Your task to perform on an android device: add a contact Image 0: 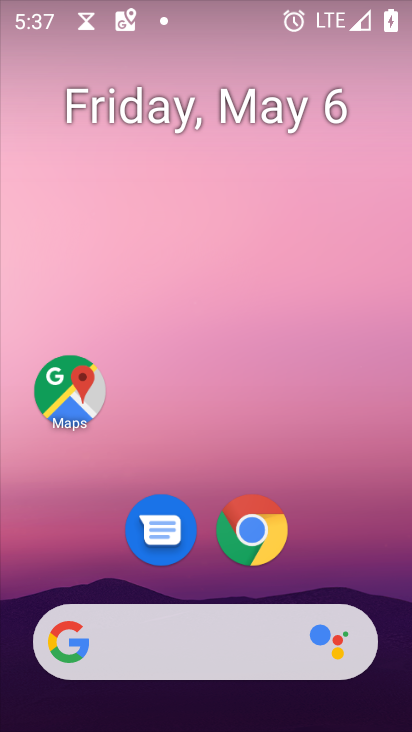
Step 0: drag from (350, 555) to (230, 9)
Your task to perform on an android device: add a contact Image 1: 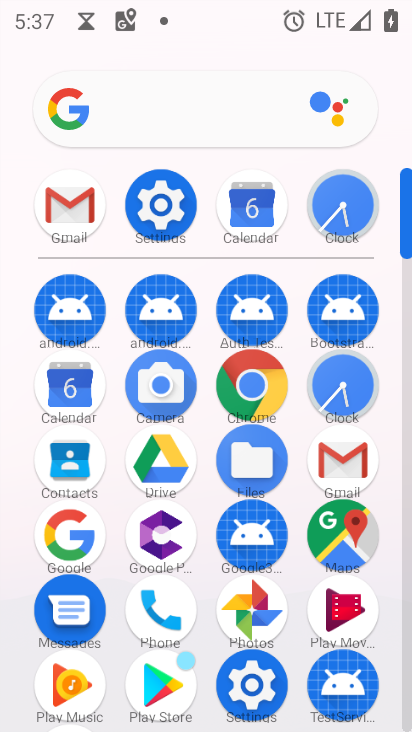
Step 1: click (64, 464)
Your task to perform on an android device: add a contact Image 2: 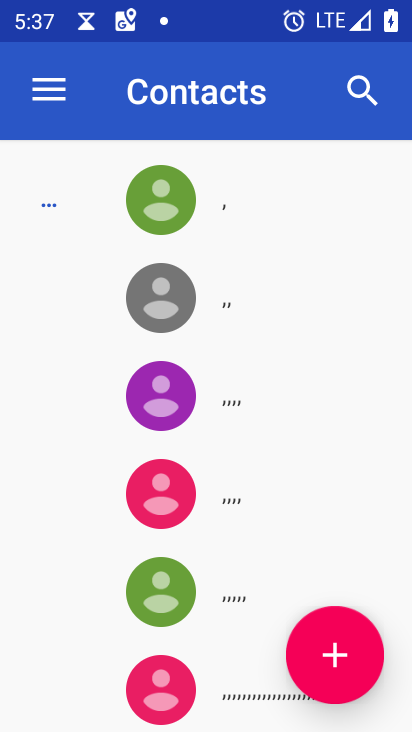
Step 2: click (330, 665)
Your task to perform on an android device: add a contact Image 3: 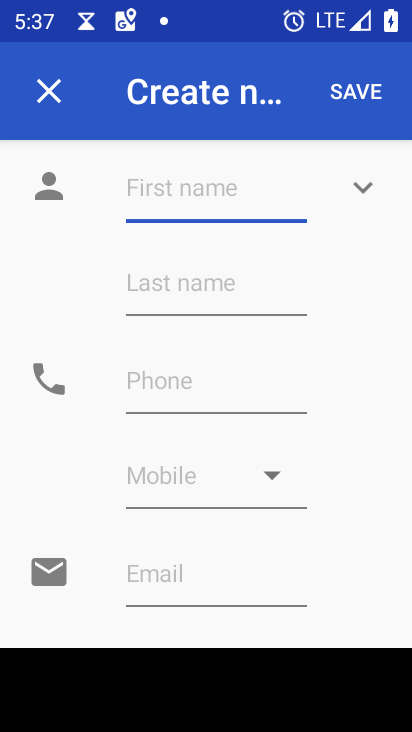
Step 3: type "dfgsd"
Your task to perform on an android device: add a contact Image 4: 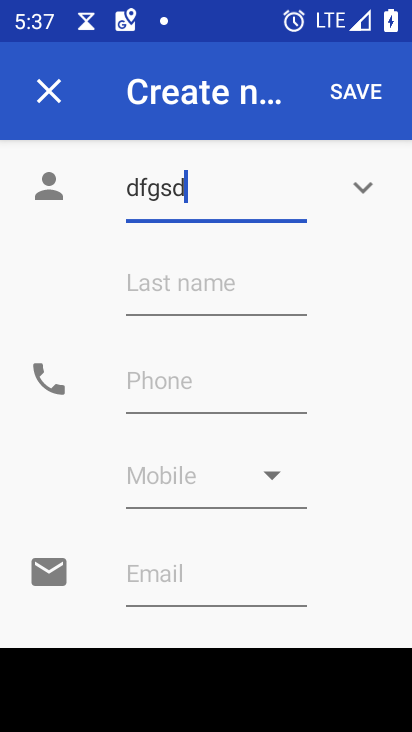
Step 4: type ""
Your task to perform on an android device: add a contact Image 5: 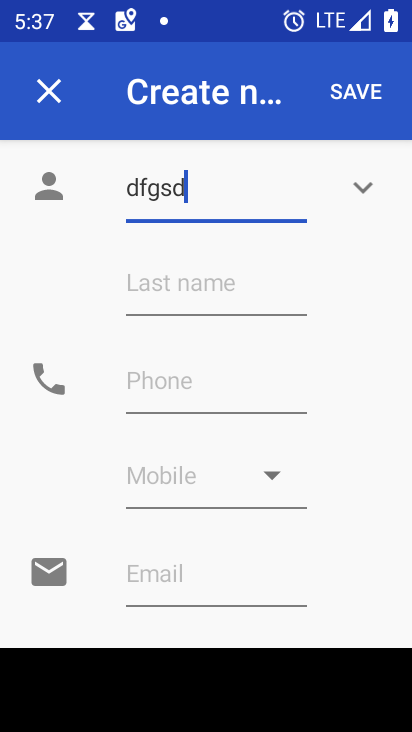
Step 5: click (268, 285)
Your task to perform on an android device: add a contact Image 6: 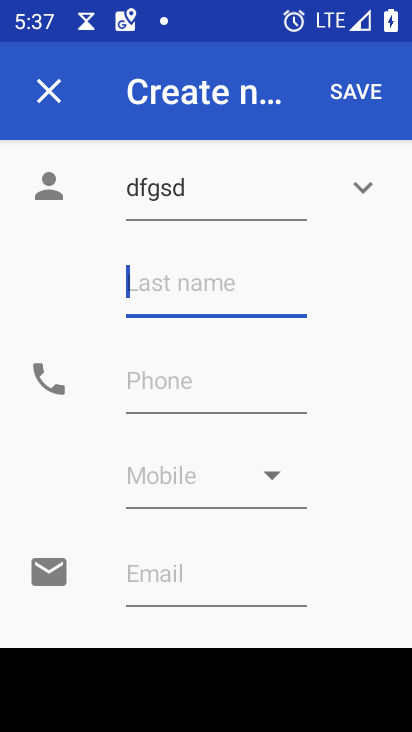
Step 6: type "fdgsd"
Your task to perform on an android device: add a contact Image 7: 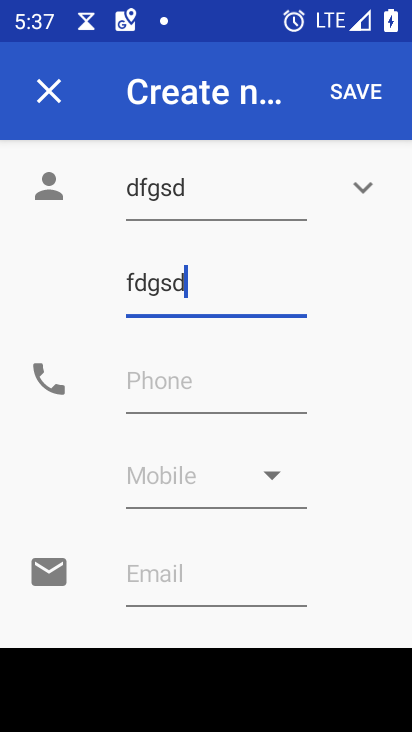
Step 7: type ""
Your task to perform on an android device: add a contact Image 8: 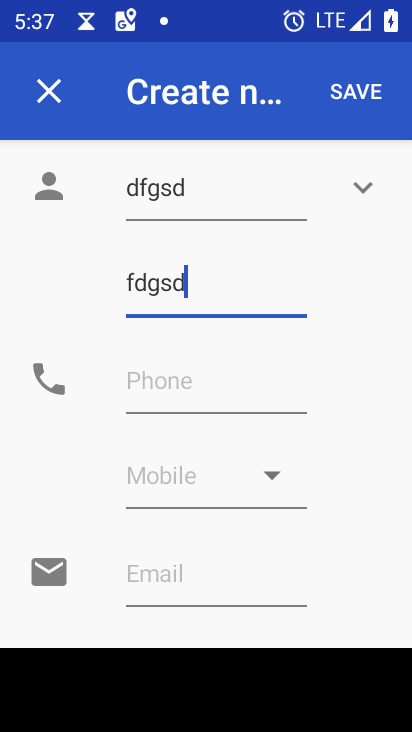
Step 8: click (247, 380)
Your task to perform on an android device: add a contact Image 9: 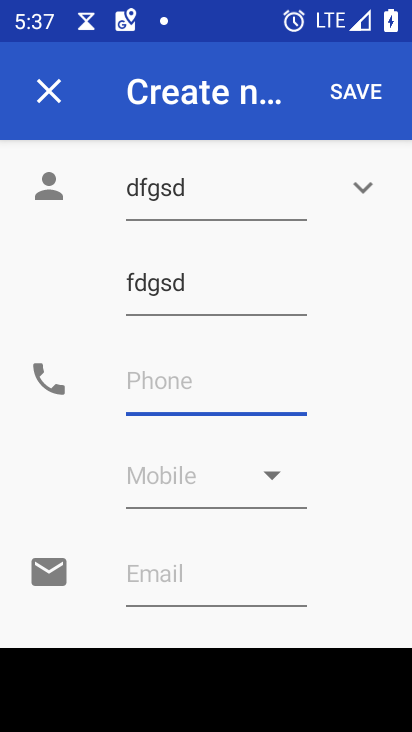
Step 9: type "4563456"
Your task to perform on an android device: add a contact Image 10: 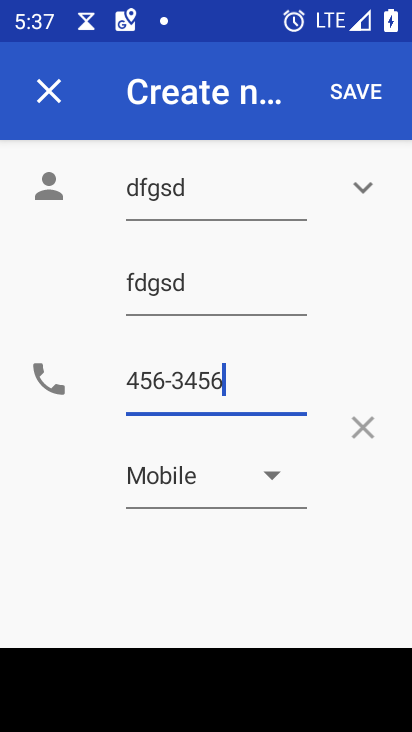
Step 10: type ""
Your task to perform on an android device: add a contact Image 11: 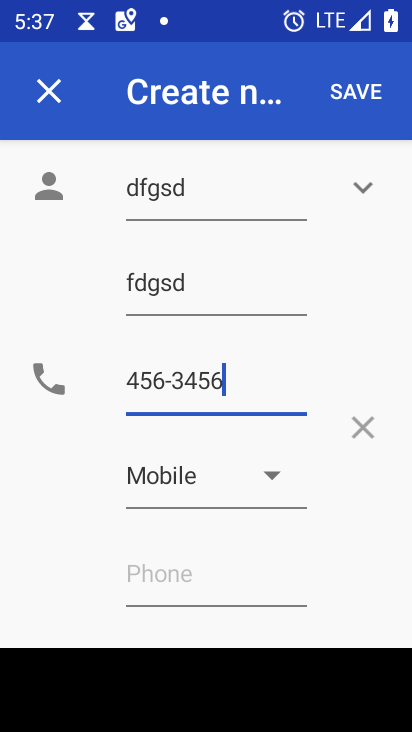
Step 11: click (353, 91)
Your task to perform on an android device: add a contact Image 12: 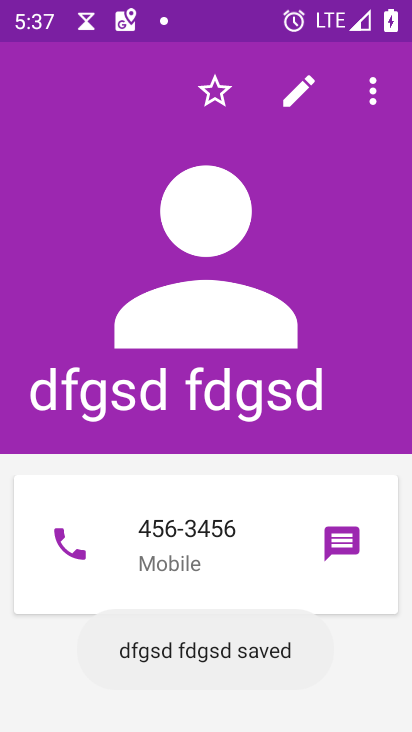
Step 12: task complete